Your task to perform on an android device: What's the weather going to be tomorrow? Image 0: 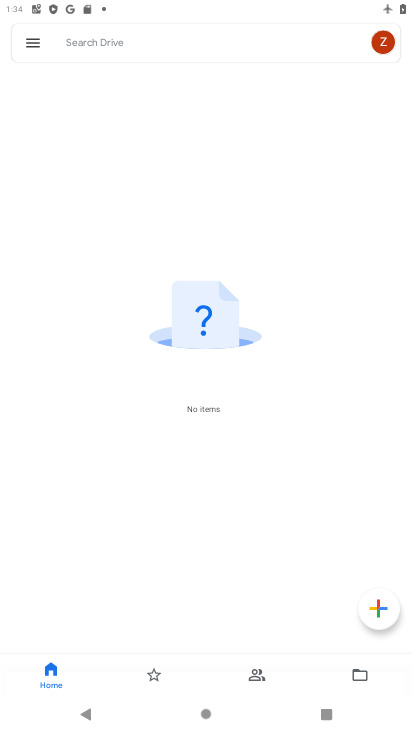
Step 0: press home button
Your task to perform on an android device: What's the weather going to be tomorrow? Image 1: 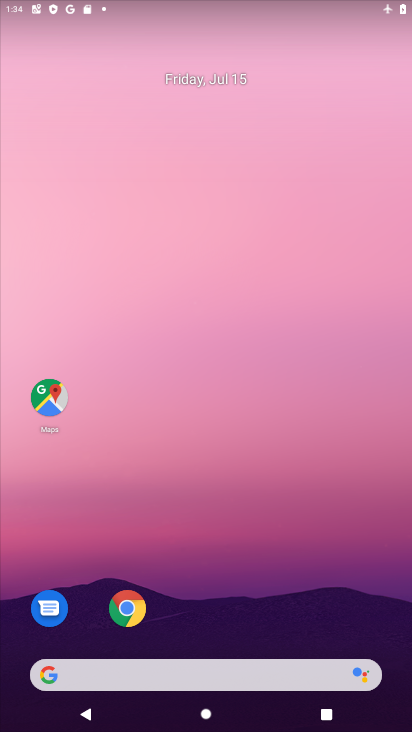
Step 1: click (261, 679)
Your task to perform on an android device: What's the weather going to be tomorrow? Image 2: 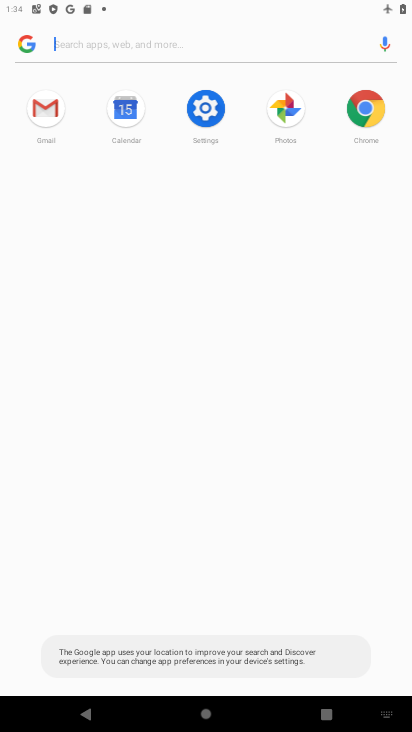
Step 2: type "What's the weather going to be tomorrow?"
Your task to perform on an android device: What's the weather going to be tomorrow? Image 3: 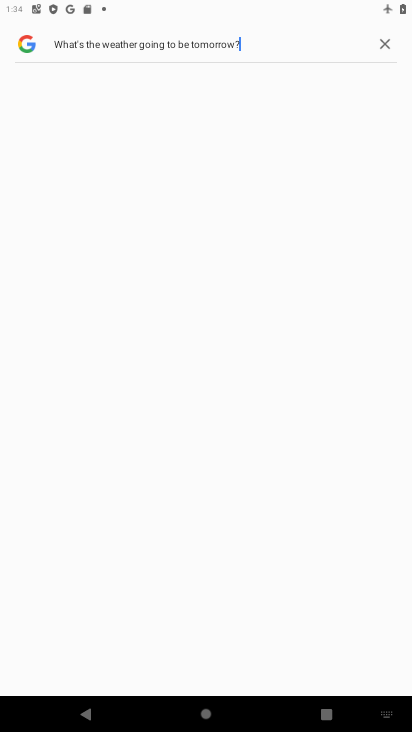
Step 3: task complete